Your task to perform on an android device: What's the weather today? Image 0: 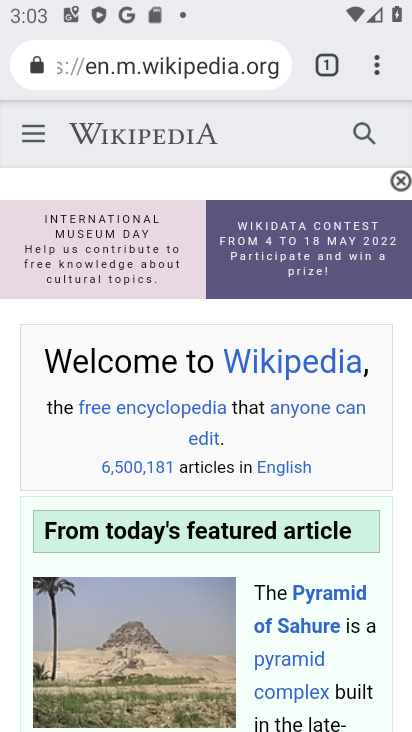
Step 0: press home button
Your task to perform on an android device: What's the weather today? Image 1: 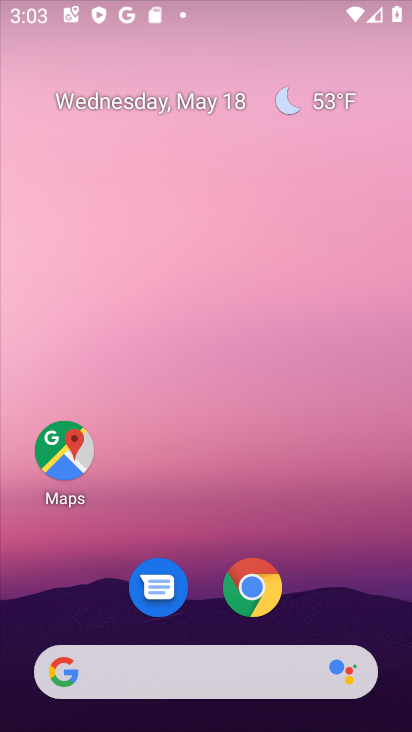
Step 1: drag from (205, 478) to (220, 205)
Your task to perform on an android device: What's the weather today? Image 2: 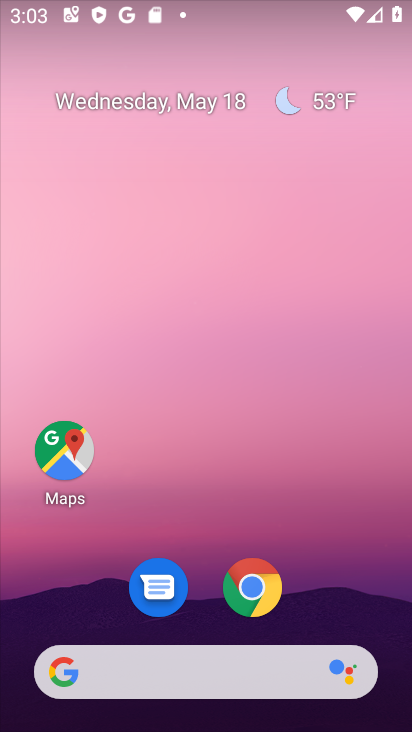
Step 2: drag from (156, 651) to (298, 139)
Your task to perform on an android device: What's the weather today? Image 3: 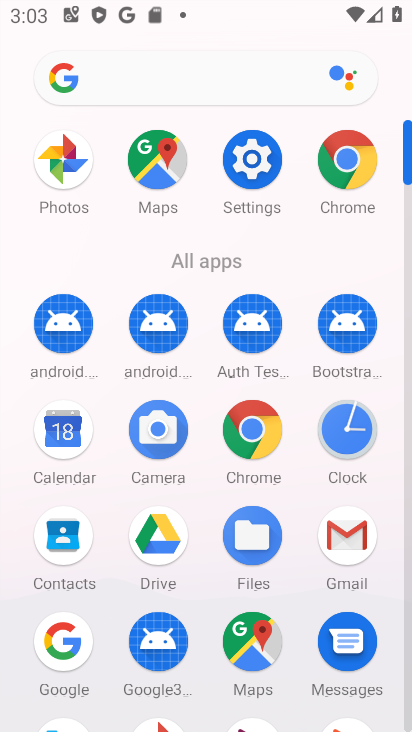
Step 3: click (73, 633)
Your task to perform on an android device: What's the weather today? Image 4: 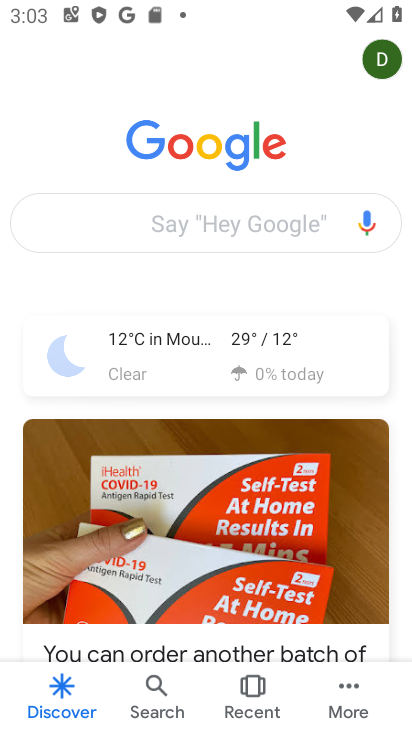
Step 4: click (260, 227)
Your task to perform on an android device: What's the weather today? Image 5: 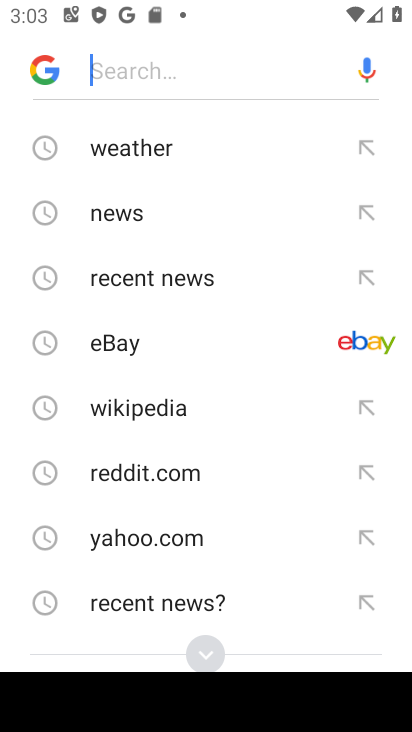
Step 5: click (204, 135)
Your task to perform on an android device: What's the weather today? Image 6: 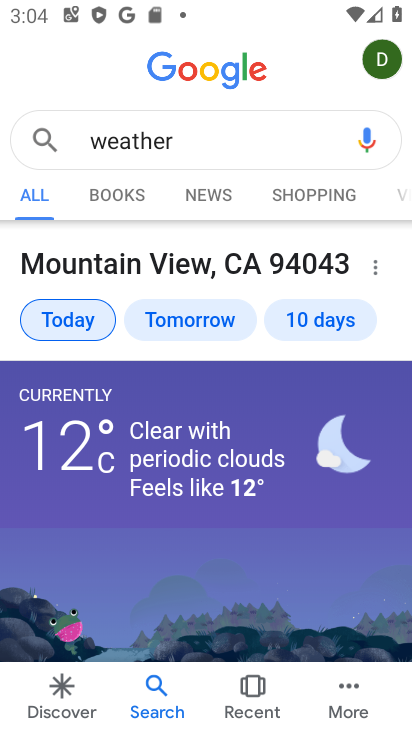
Step 6: task complete